Your task to perform on an android device: Open settings on Google Maps Image 0: 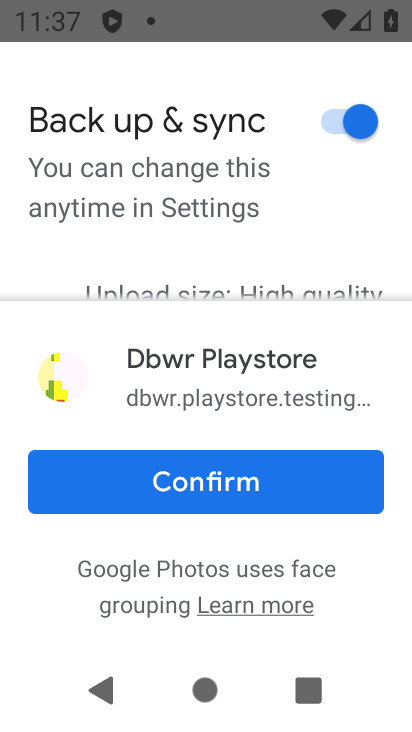
Step 0: press home button
Your task to perform on an android device: Open settings on Google Maps Image 1: 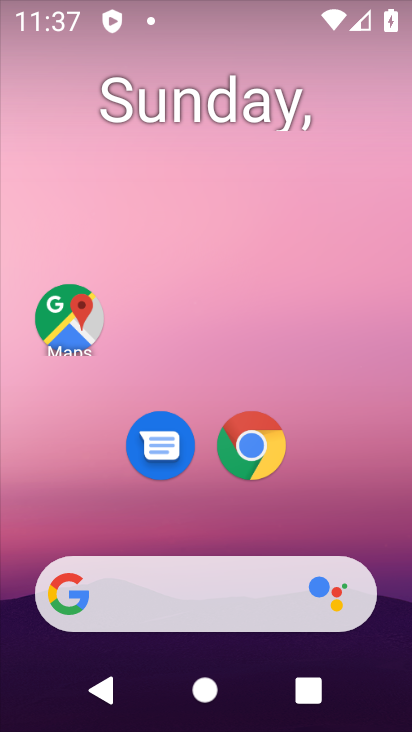
Step 1: click (80, 308)
Your task to perform on an android device: Open settings on Google Maps Image 2: 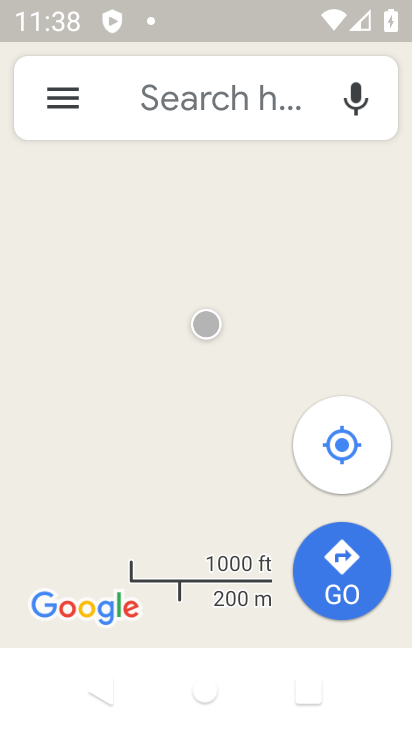
Step 2: click (71, 85)
Your task to perform on an android device: Open settings on Google Maps Image 3: 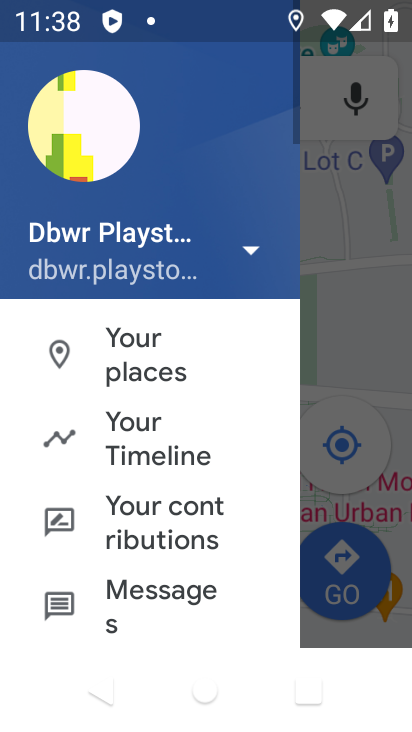
Step 3: drag from (204, 409) to (214, 154)
Your task to perform on an android device: Open settings on Google Maps Image 4: 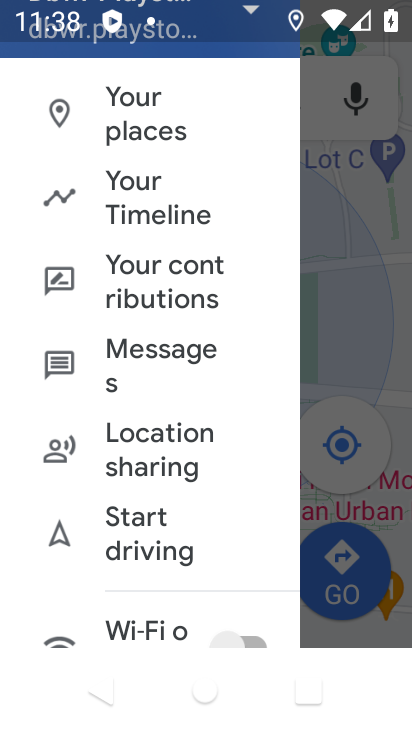
Step 4: drag from (197, 566) to (229, 232)
Your task to perform on an android device: Open settings on Google Maps Image 5: 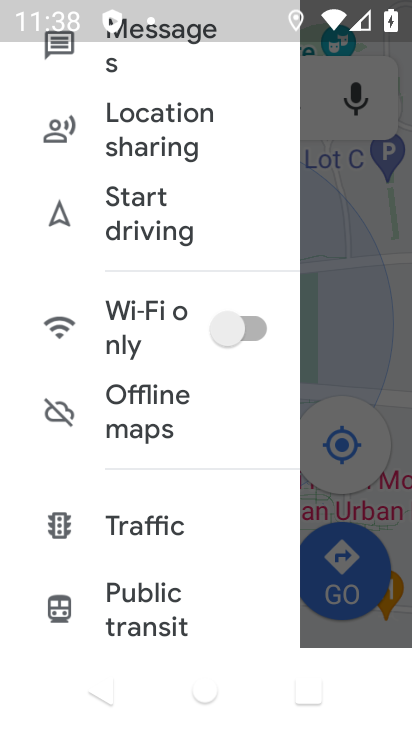
Step 5: drag from (202, 529) to (220, 123)
Your task to perform on an android device: Open settings on Google Maps Image 6: 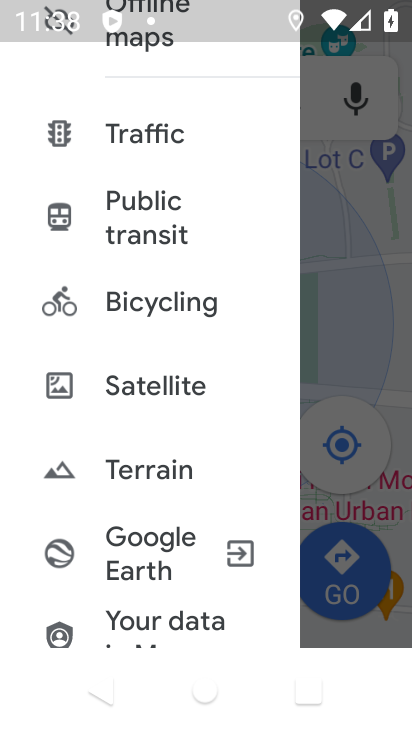
Step 6: drag from (166, 591) to (190, 176)
Your task to perform on an android device: Open settings on Google Maps Image 7: 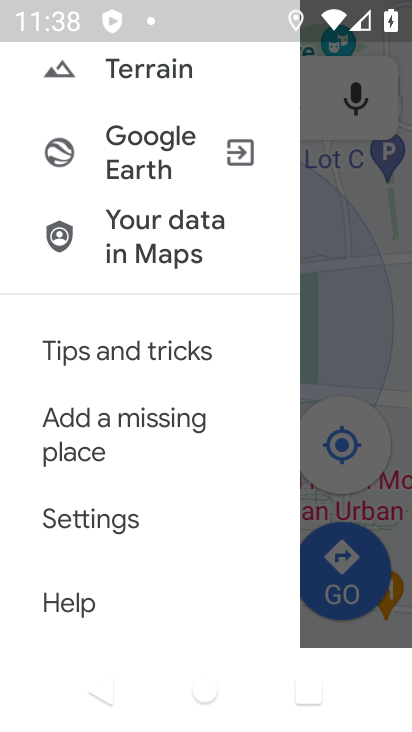
Step 7: click (48, 531)
Your task to perform on an android device: Open settings on Google Maps Image 8: 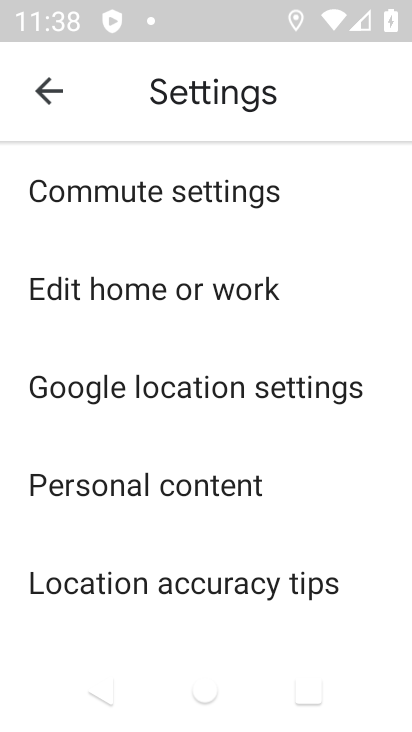
Step 8: task complete